Your task to perform on an android device: star an email in the gmail app Image 0: 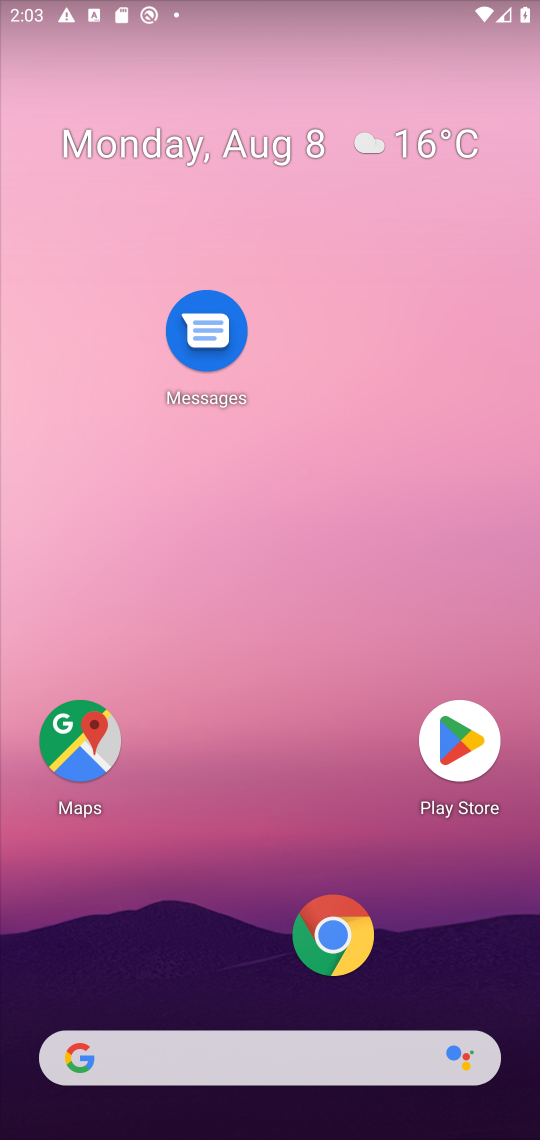
Step 0: drag from (247, 770) to (347, 237)
Your task to perform on an android device: star an email in the gmail app Image 1: 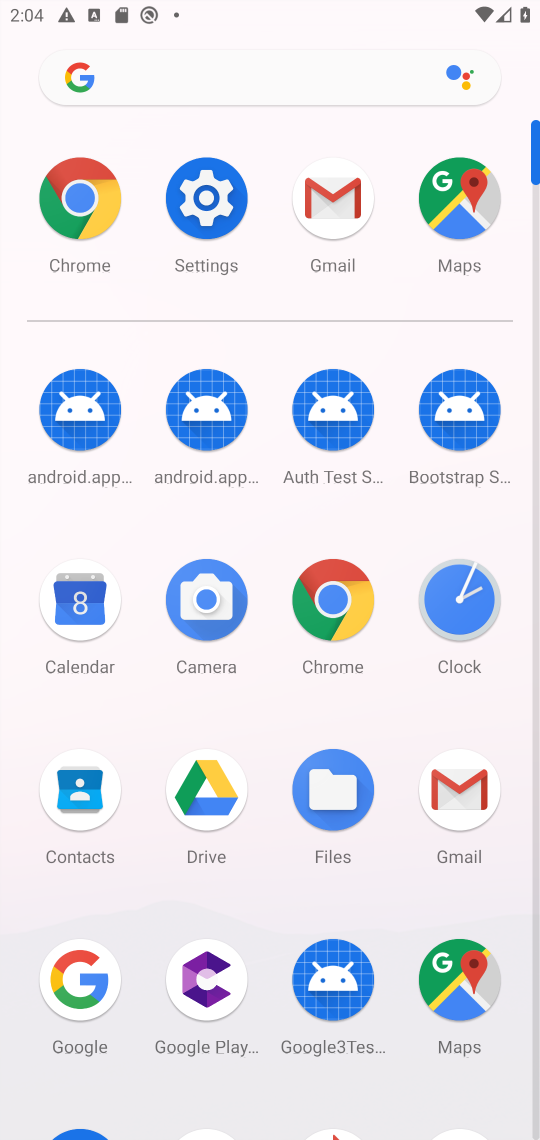
Step 1: click (477, 780)
Your task to perform on an android device: star an email in the gmail app Image 2: 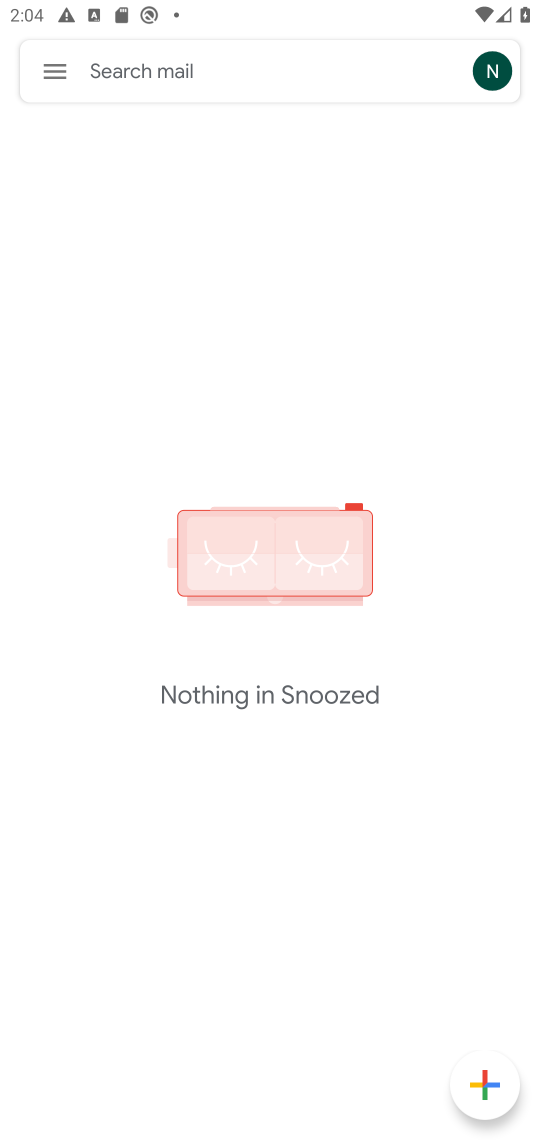
Step 2: click (48, 59)
Your task to perform on an android device: star an email in the gmail app Image 3: 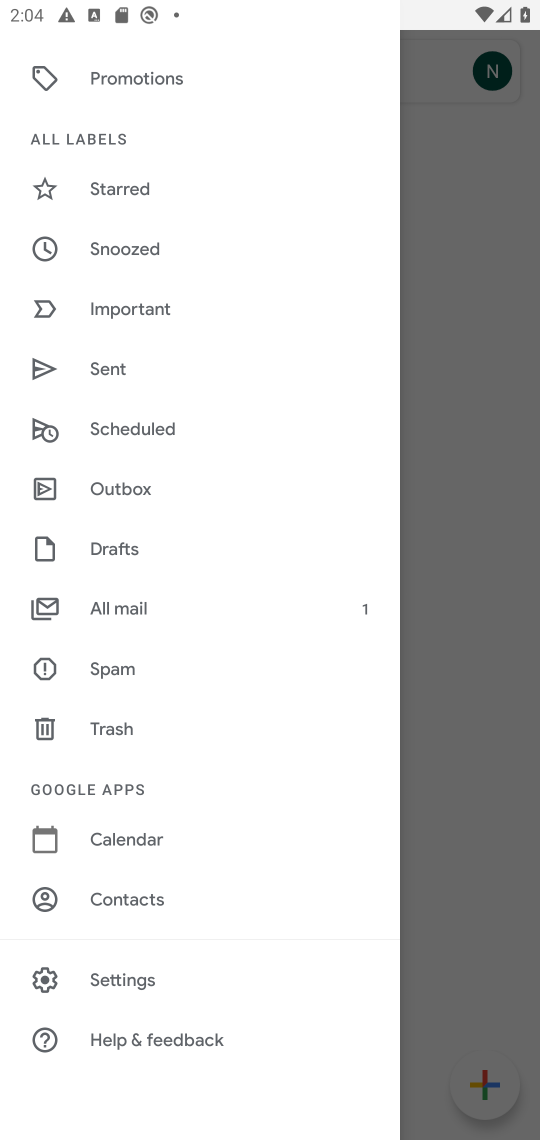
Step 3: click (125, 174)
Your task to perform on an android device: star an email in the gmail app Image 4: 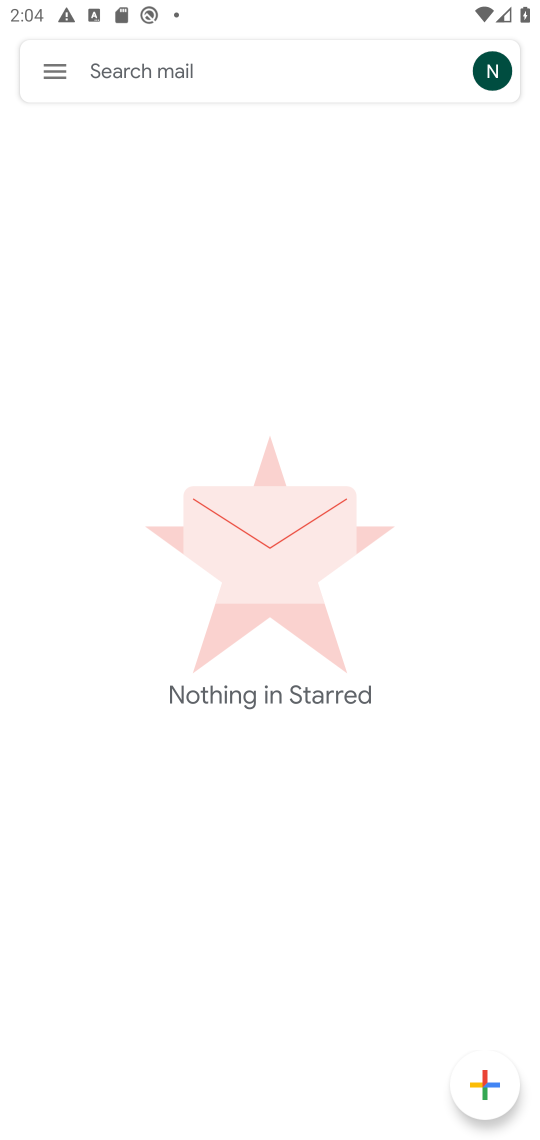
Step 4: task complete